Your task to perform on an android device: What's the weather today? Image 0: 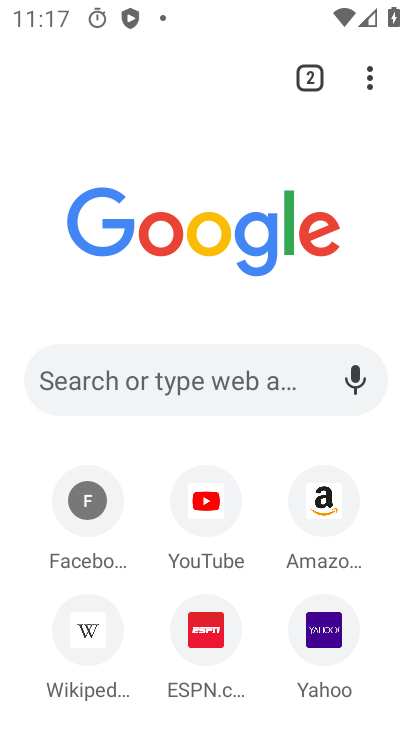
Step 0: press home button
Your task to perform on an android device: What's the weather today? Image 1: 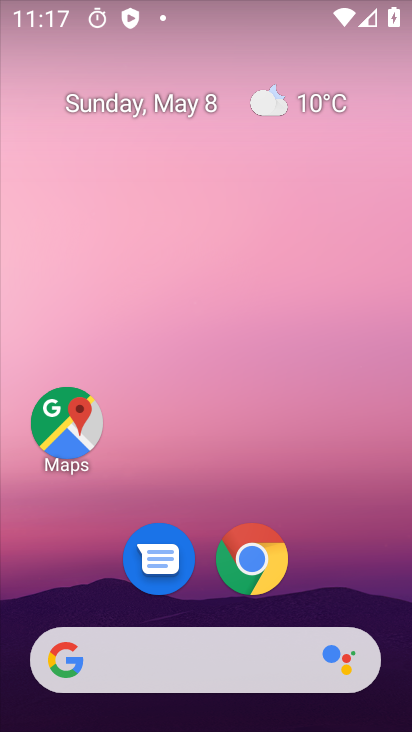
Step 1: click (320, 120)
Your task to perform on an android device: What's the weather today? Image 2: 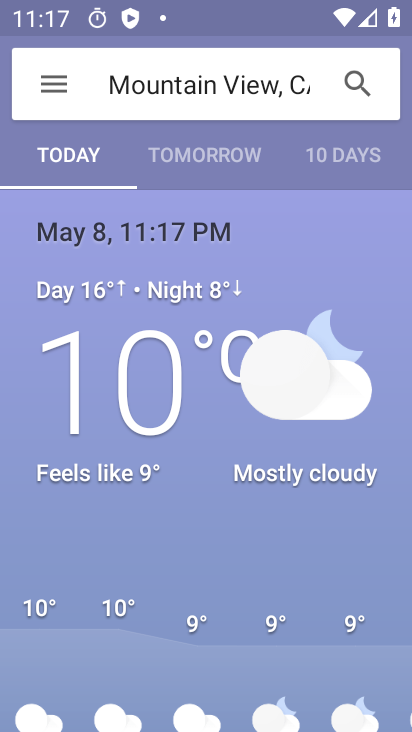
Step 2: task complete